Your task to perform on an android device: Go to Google Image 0: 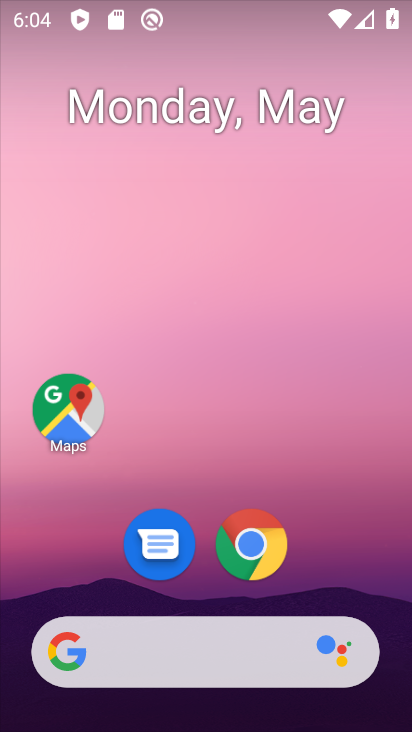
Step 0: press home button
Your task to perform on an android device: Go to Google Image 1: 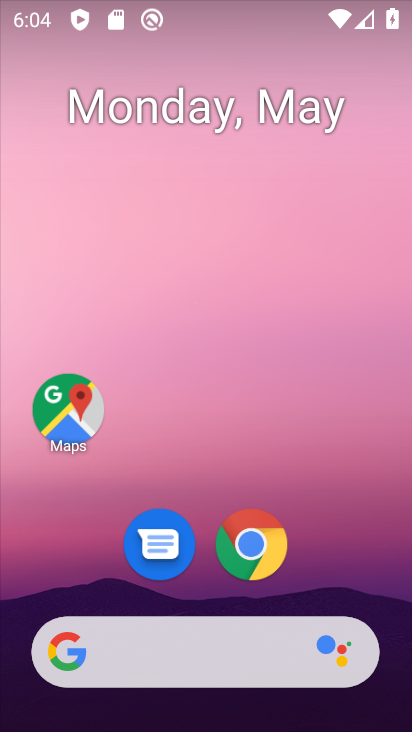
Step 1: drag from (323, 461) to (179, 11)
Your task to perform on an android device: Go to Google Image 2: 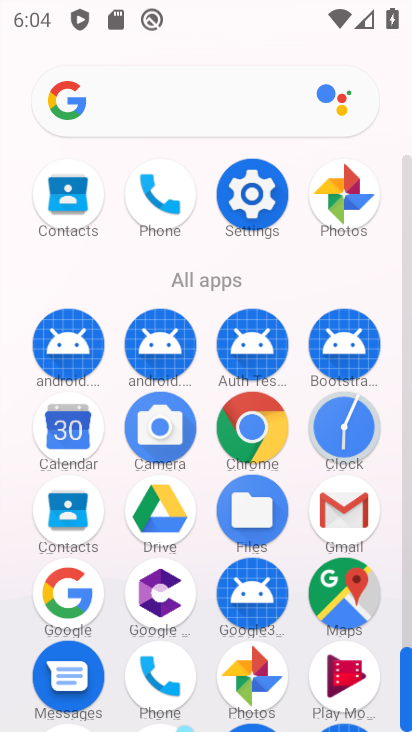
Step 2: click (81, 589)
Your task to perform on an android device: Go to Google Image 3: 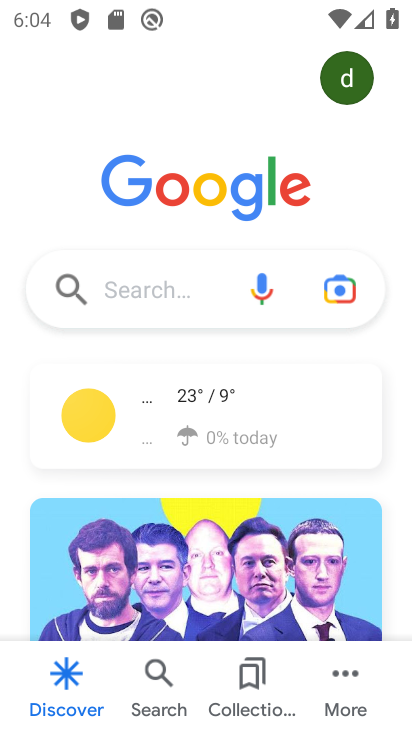
Step 3: task complete